Your task to perform on an android device: toggle translation in the chrome app Image 0: 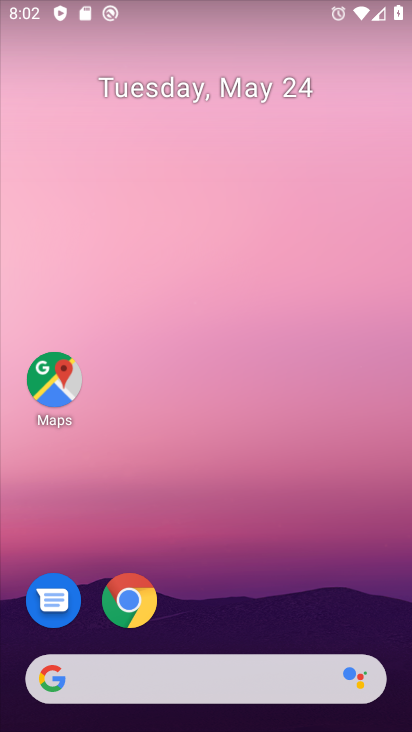
Step 0: click (134, 601)
Your task to perform on an android device: toggle translation in the chrome app Image 1: 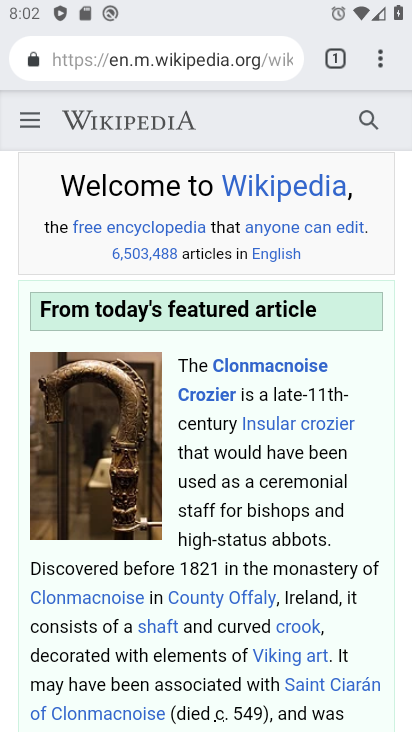
Step 1: click (381, 64)
Your task to perform on an android device: toggle translation in the chrome app Image 2: 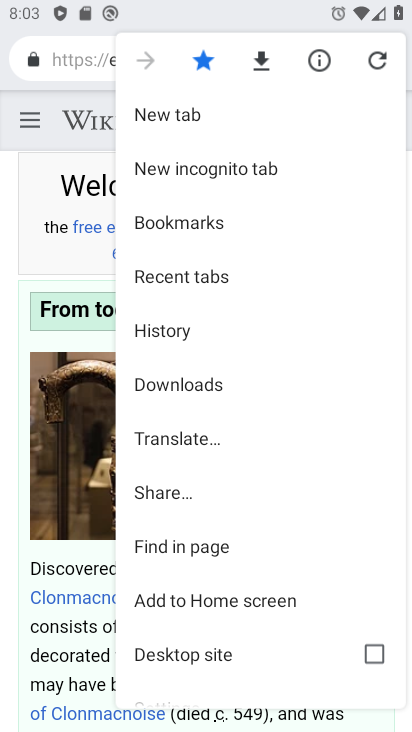
Step 2: drag from (271, 671) to (269, 226)
Your task to perform on an android device: toggle translation in the chrome app Image 3: 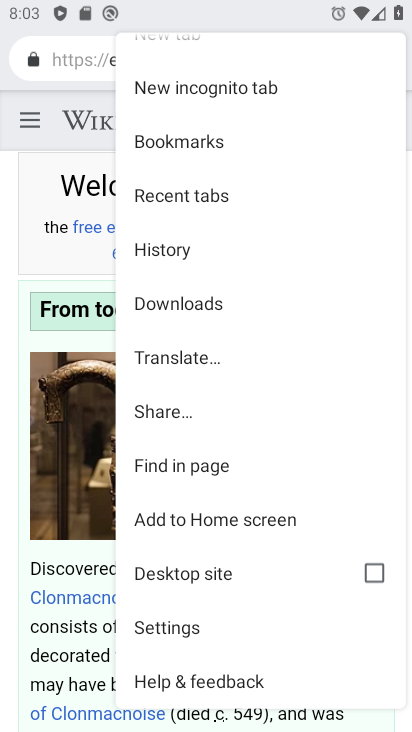
Step 3: click (167, 622)
Your task to perform on an android device: toggle translation in the chrome app Image 4: 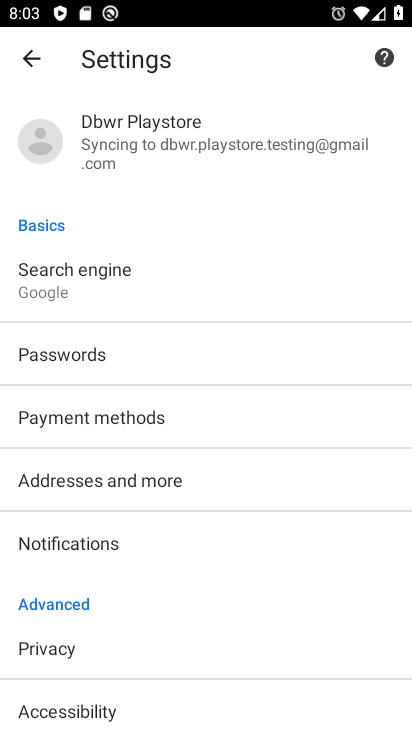
Step 4: drag from (114, 680) to (113, 294)
Your task to perform on an android device: toggle translation in the chrome app Image 5: 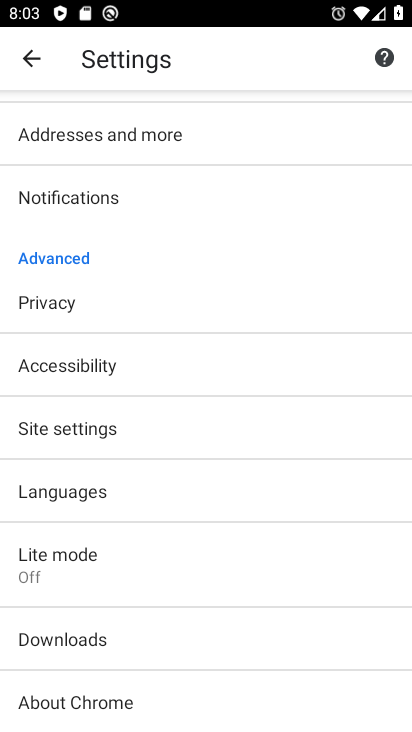
Step 5: click (76, 492)
Your task to perform on an android device: toggle translation in the chrome app Image 6: 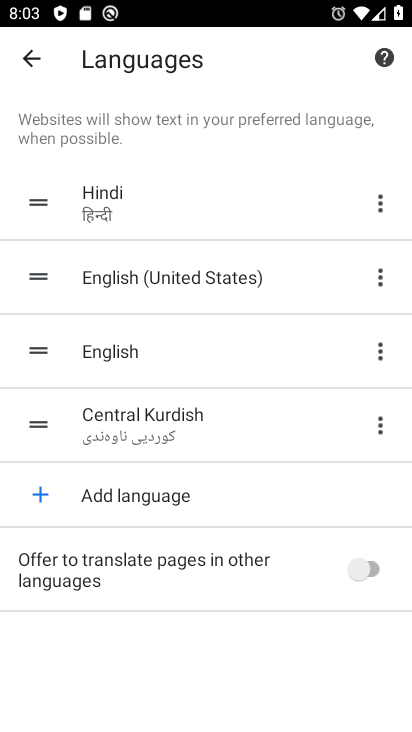
Step 6: click (376, 563)
Your task to perform on an android device: toggle translation in the chrome app Image 7: 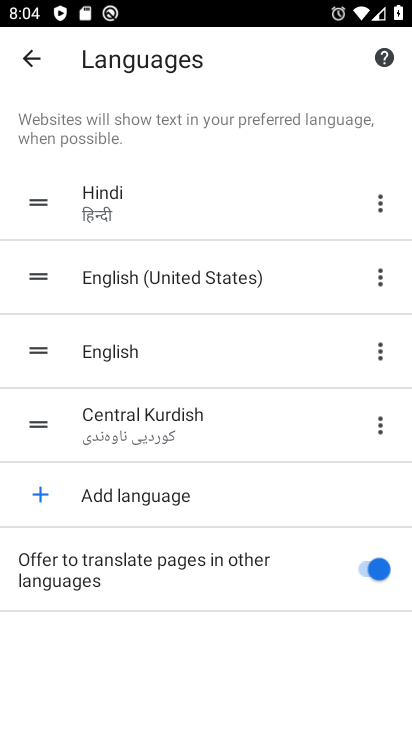
Step 7: task complete